Your task to perform on an android device: open app "Microsoft Excel" (install if not already installed) Image 0: 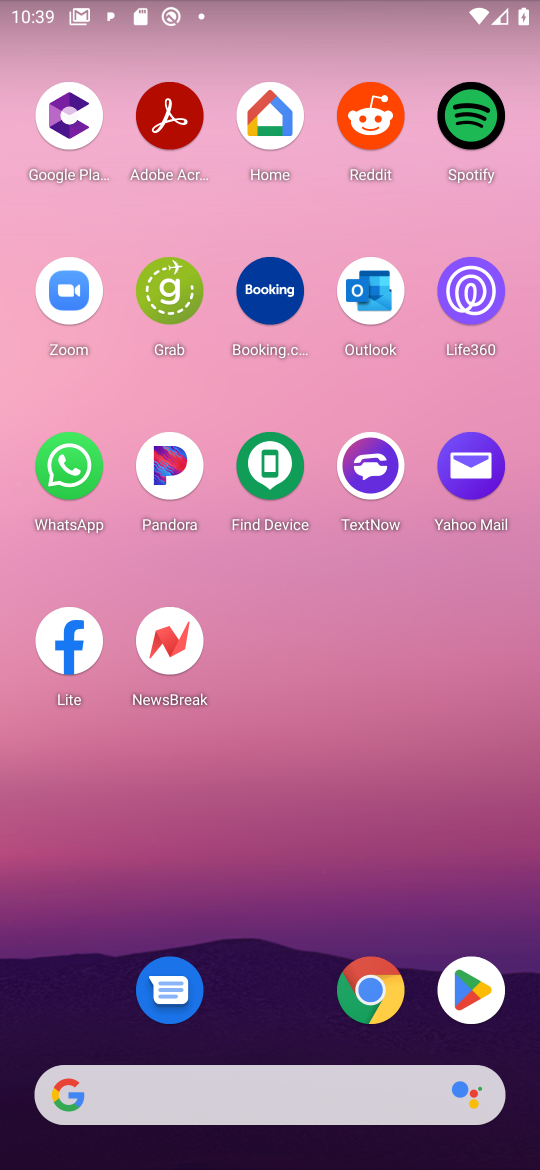
Step 0: press home button
Your task to perform on an android device: open app "Microsoft Excel" (install if not already installed) Image 1: 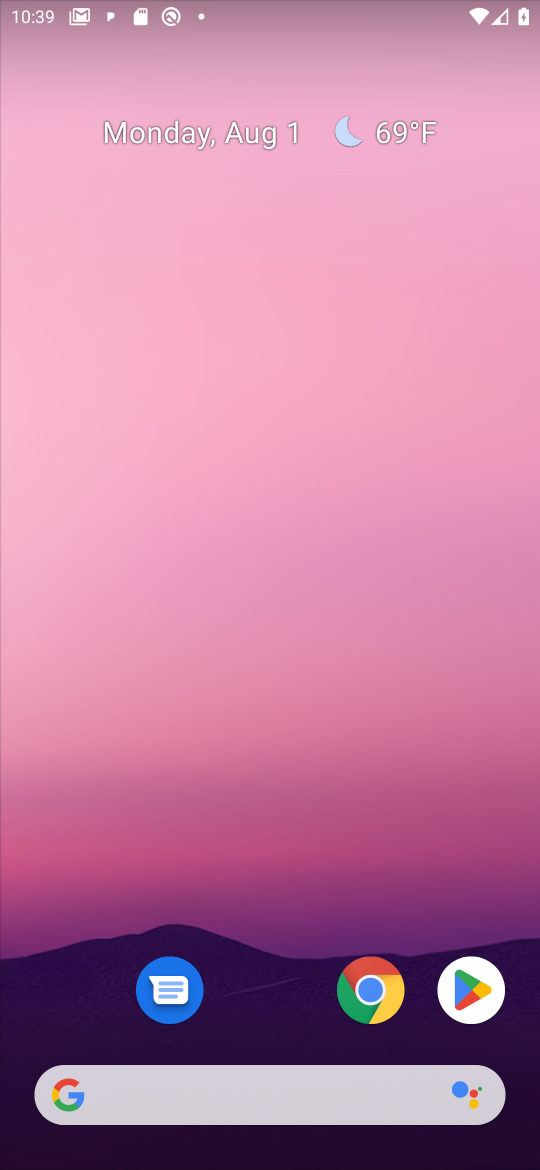
Step 1: click (476, 982)
Your task to perform on an android device: open app "Microsoft Excel" (install if not already installed) Image 2: 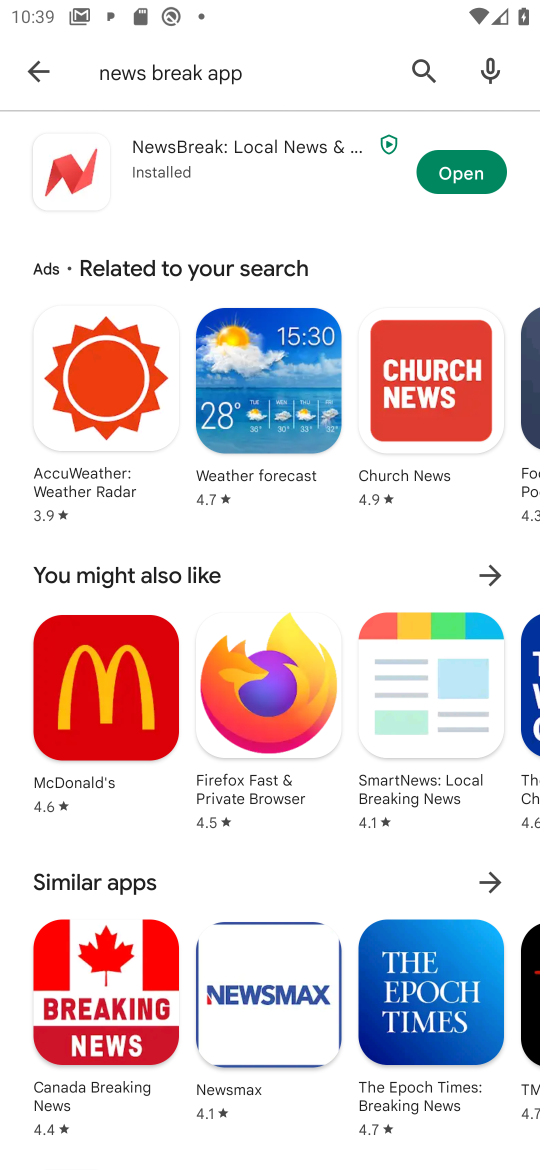
Step 2: click (421, 65)
Your task to perform on an android device: open app "Microsoft Excel" (install if not already installed) Image 3: 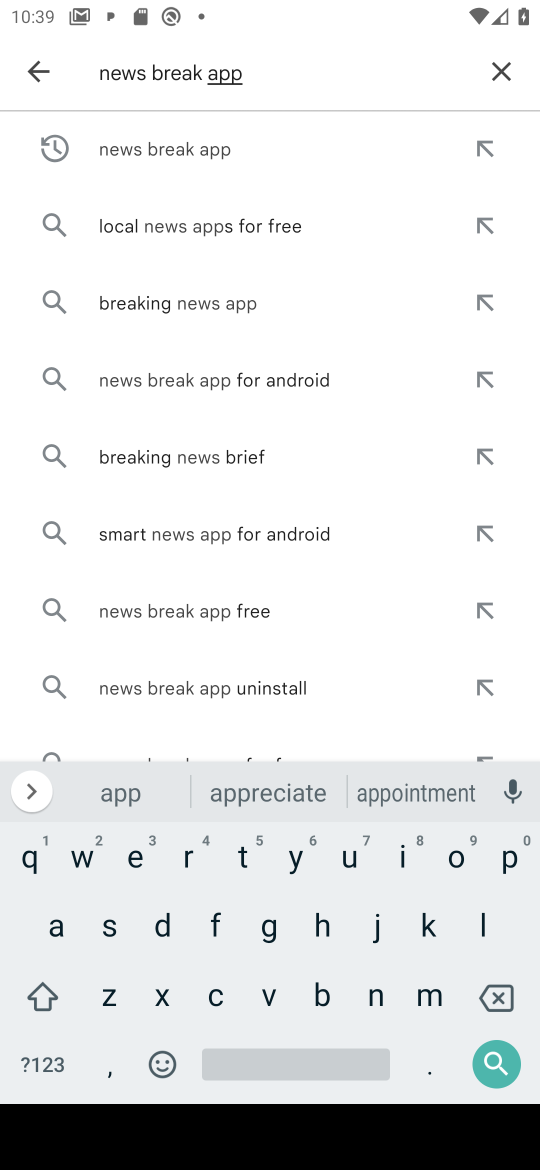
Step 3: click (508, 76)
Your task to perform on an android device: open app "Microsoft Excel" (install if not already installed) Image 4: 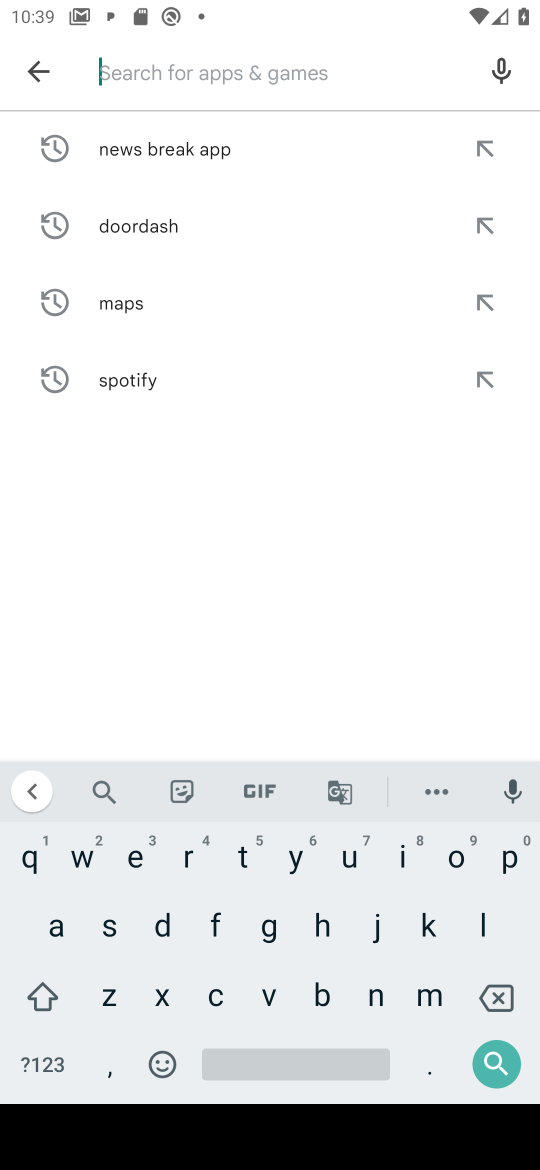
Step 4: click (132, 865)
Your task to perform on an android device: open app "Microsoft Excel" (install if not already installed) Image 5: 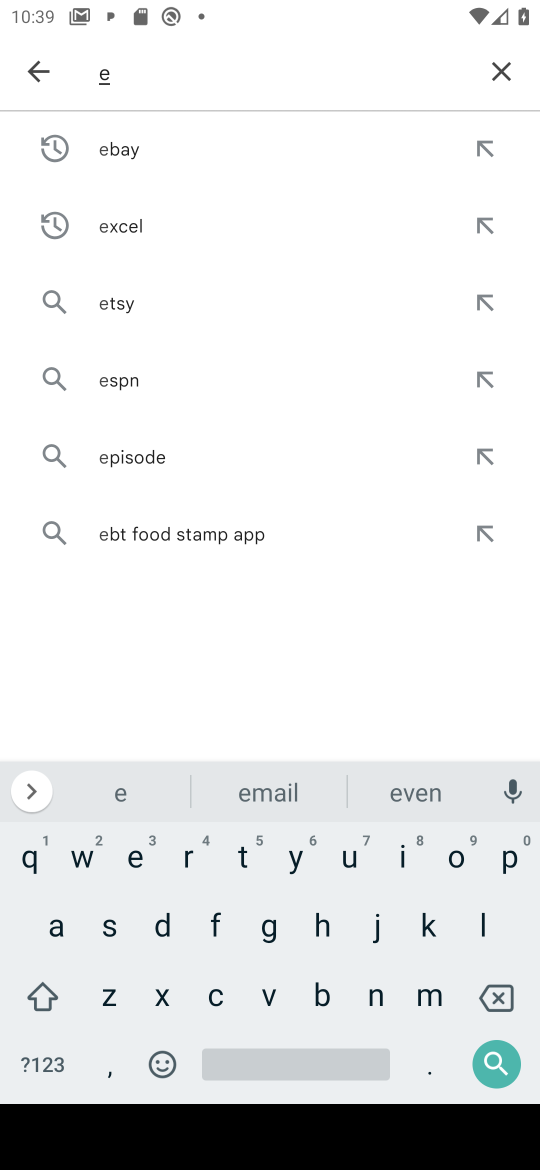
Step 5: click (159, 986)
Your task to perform on an android device: open app "Microsoft Excel" (install if not already installed) Image 6: 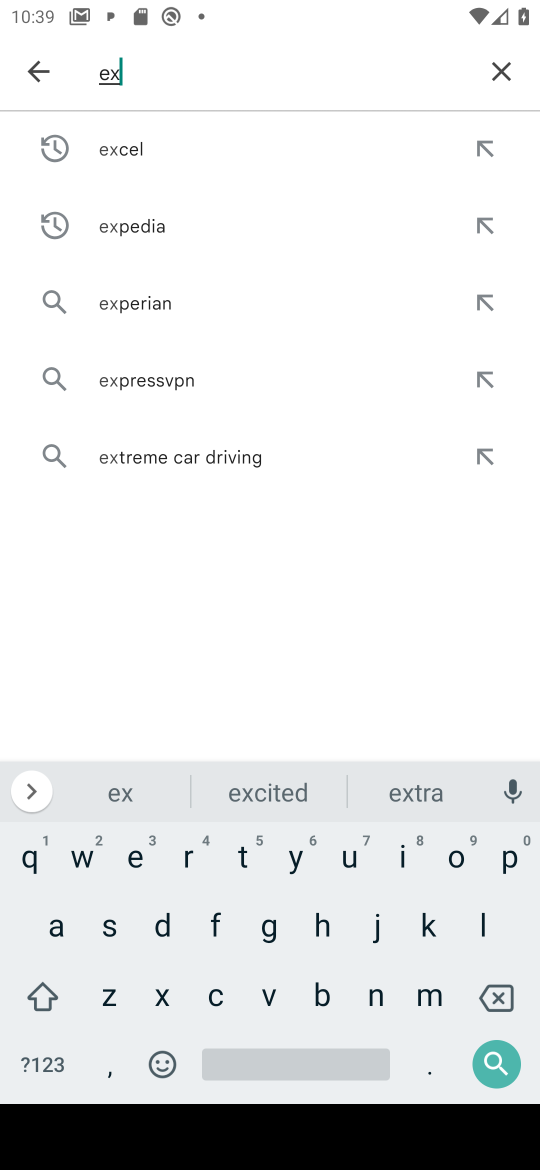
Step 6: click (215, 988)
Your task to perform on an android device: open app "Microsoft Excel" (install if not already installed) Image 7: 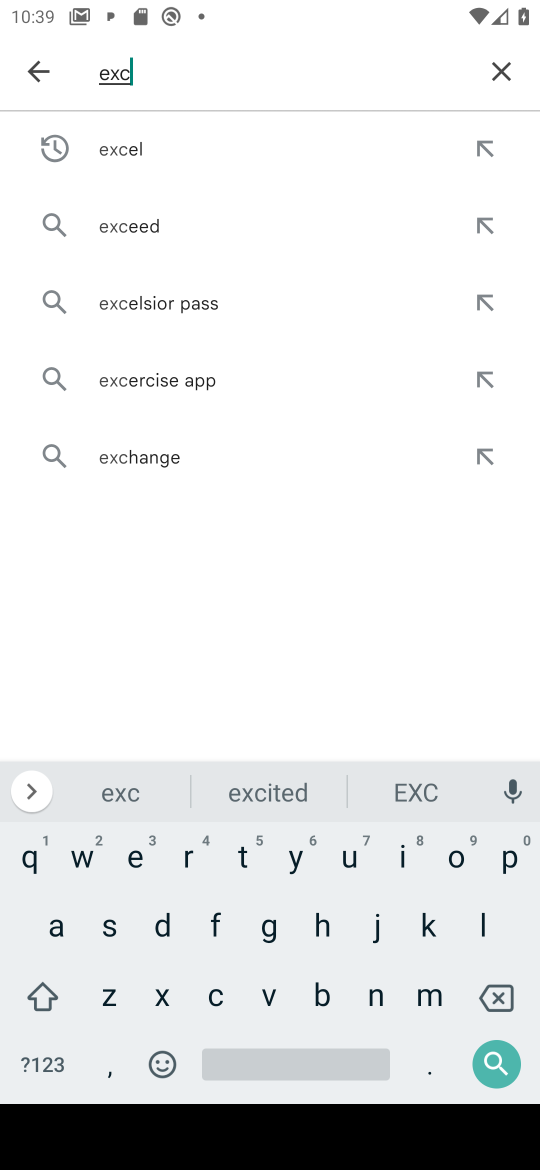
Step 7: click (142, 154)
Your task to perform on an android device: open app "Microsoft Excel" (install if not already installed) Image 8: 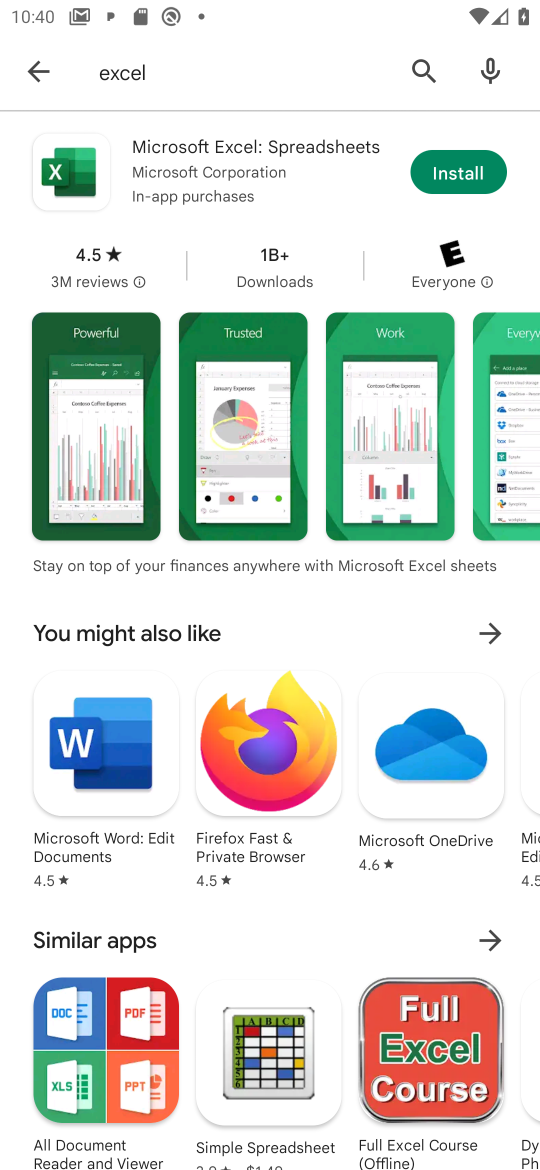
Step 8: click (429, 164)
Your task to perform on an android device: open app "Microsoft Excel" (install if not already installed) Image 9: 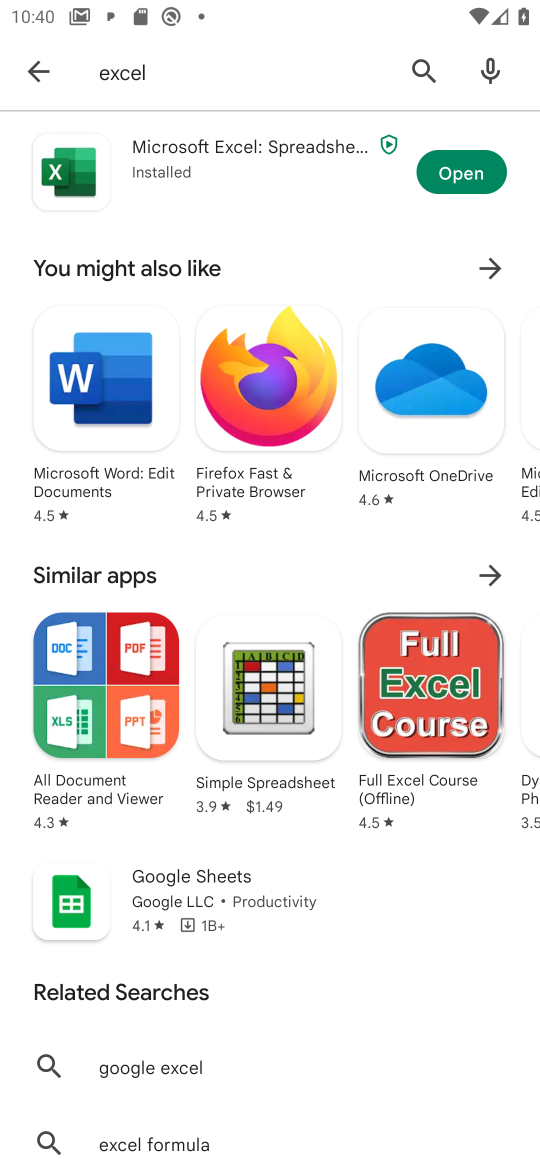
Step 9: click (454, 176)
Your task to perform on an android device: open app "Microsoft Excel" (install if not already installed) Image 10: 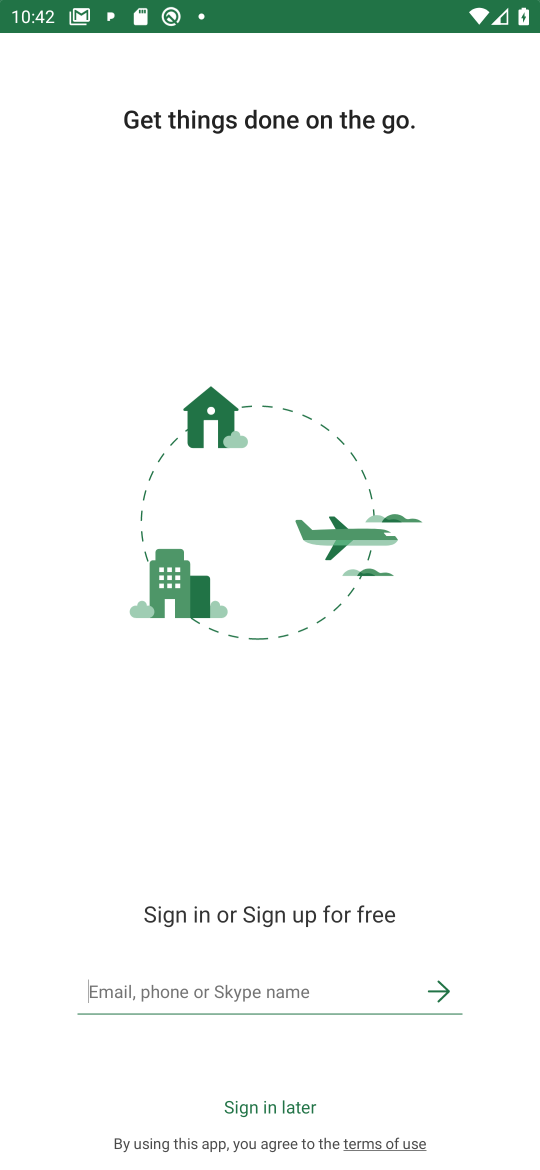
Step 10: task complete